Your task to perform on an android device: Open Yahoo.com Image 0: 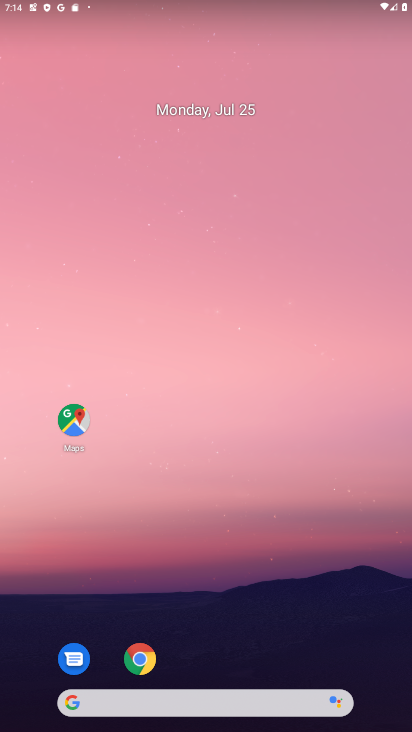
Step 0: click (141, 655)
Your task to perform on an android device: Open Yahoo.com Image 1: 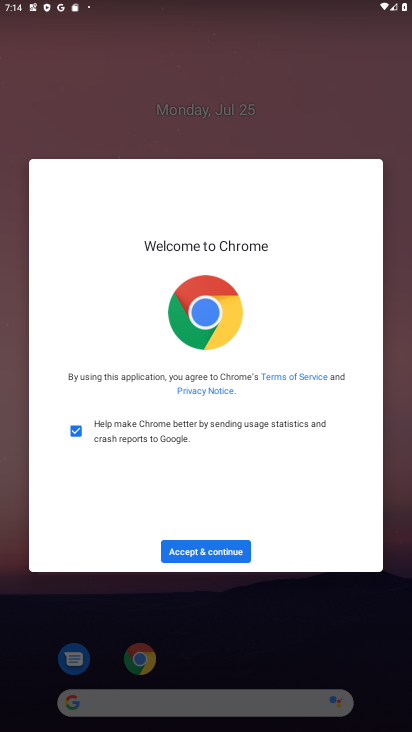
Step 1: click (230, 546)
Your task to perform on an android device: Open Yahoo.com Image 2: 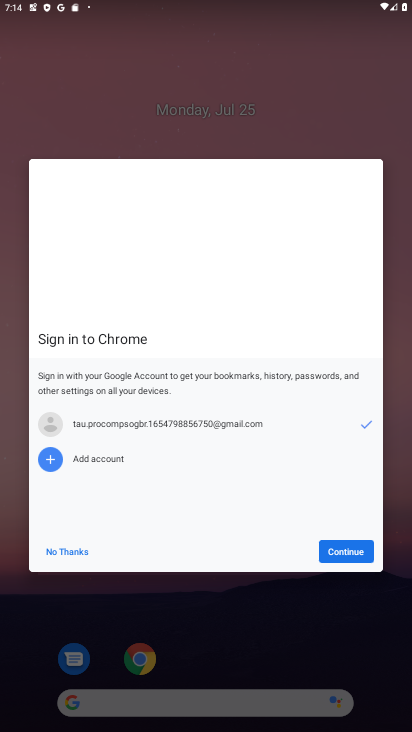
Step 2: click (333, 546)
Your task to perform on an android device: Open Yahoo.com Image 3: 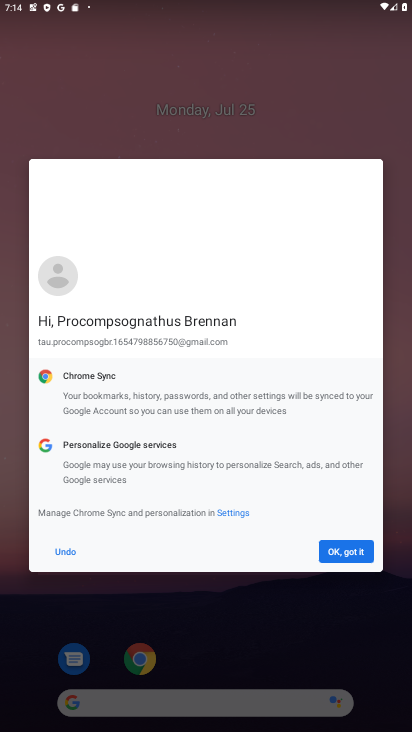
Step 3: click (333, 546)
Your task to perform on an android device: Open Yahoo.com Image 4: 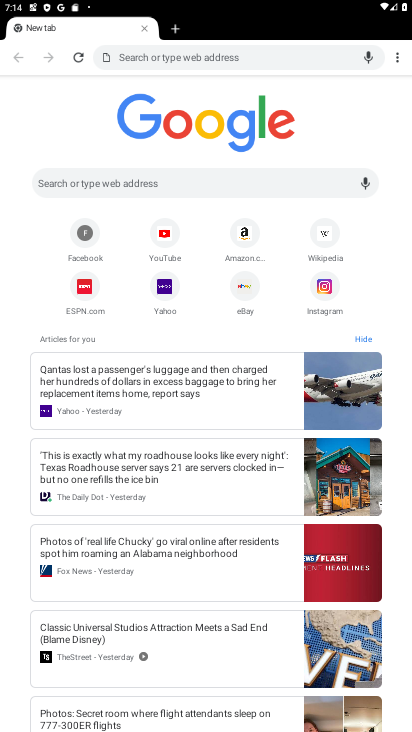
Step 4: click (168, 296)
Your task to perform on an android device: Open Yahoo.com Image 5: 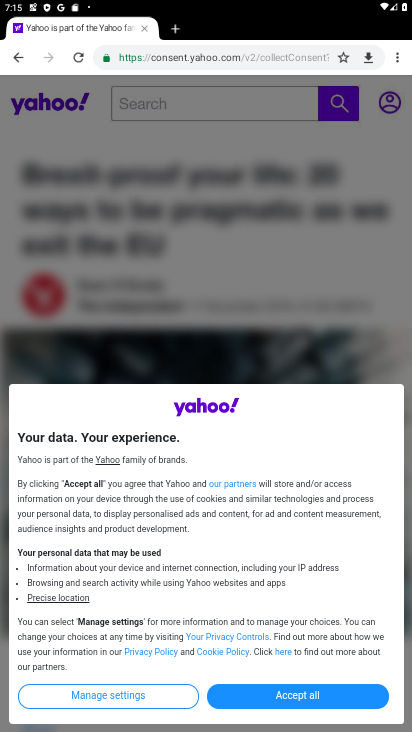
Step 5: task complete